Your task to perform on an android device: allow cookies in the chrome app Image 0: 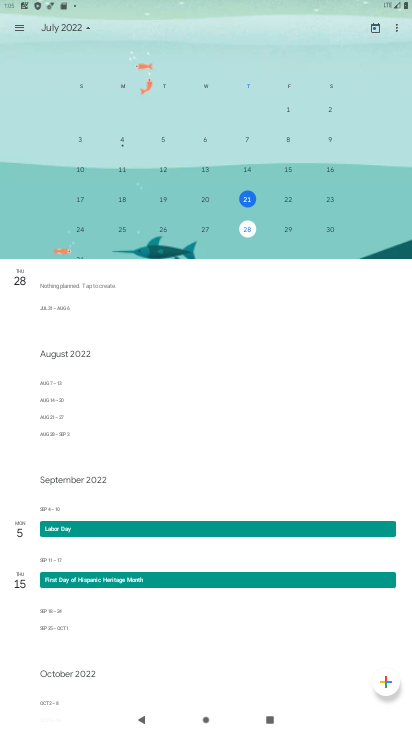
Step 0: press home button
Your task to perform on an android device: allow cookies in the chrome app Image 1: 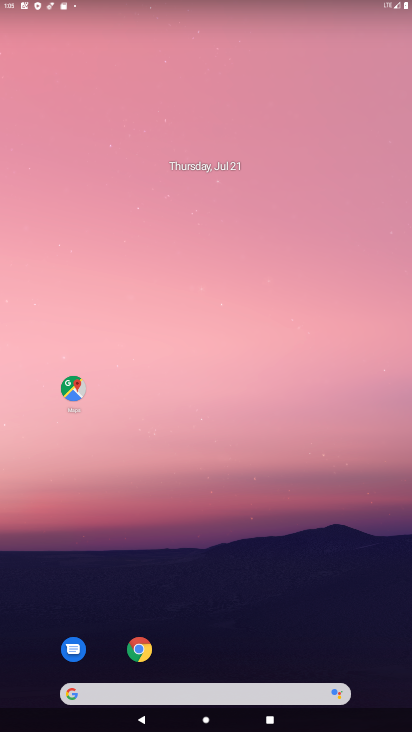
Step 1: click (142, 652)
Your task to perform on an android device: allow cookies in the chrome app Image 2: 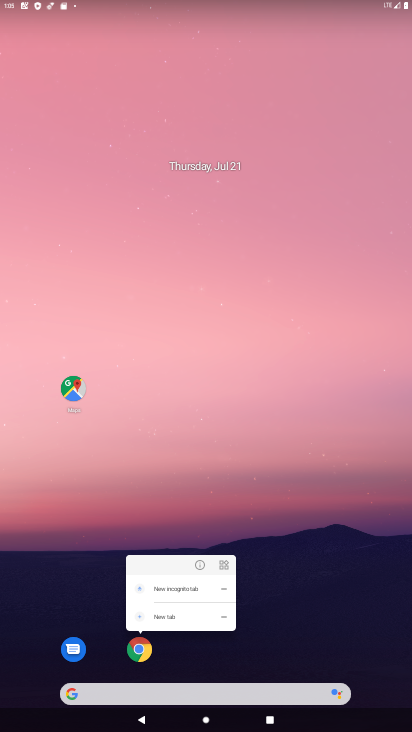
Step 2: click (146, 656)
Your task to perform on an android device: allow cookies in the chrome app Image 3: 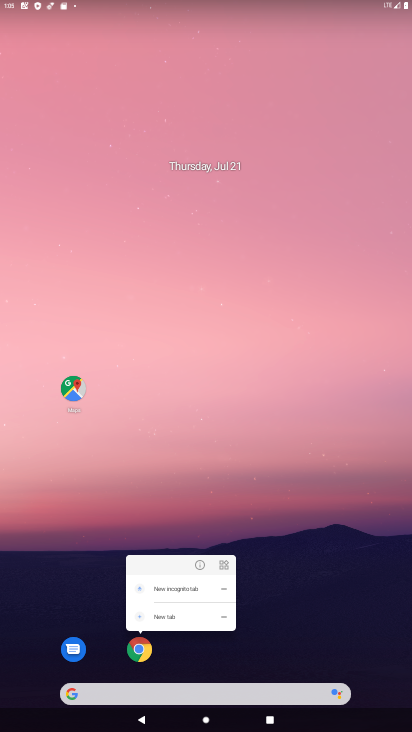
Step 3: click (133, 649)
Your task to perform on an android device: allow cookies in the chrome app Image 4: 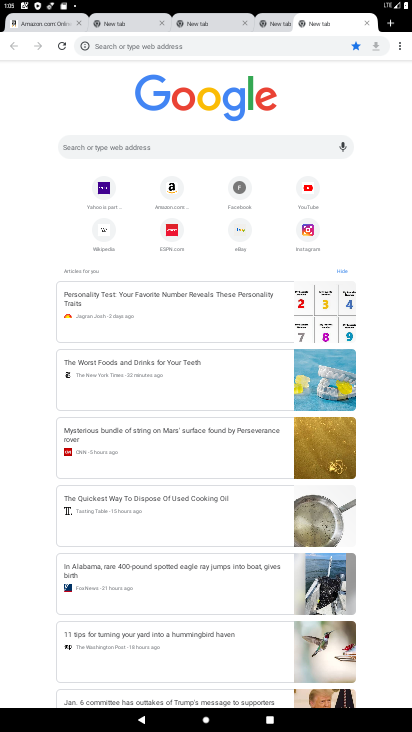
Step 4: click (404, 45)
Your task to perform on an android device: allow cookies in the chrome app Image 5: 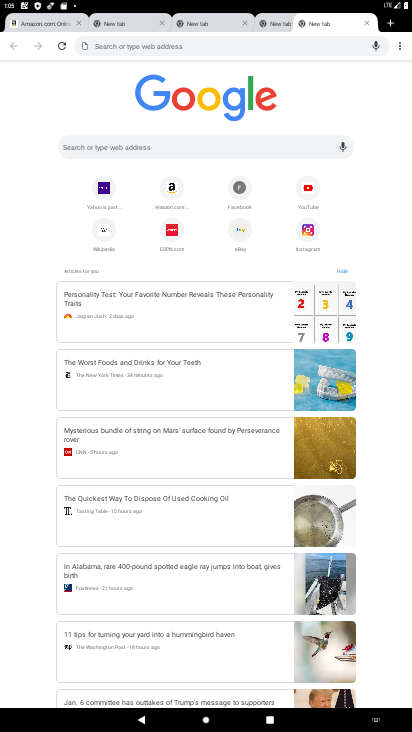
Step 5: click (399, 41)
Your task to perform on an android device: allow cookies in the chrome app Image 6: 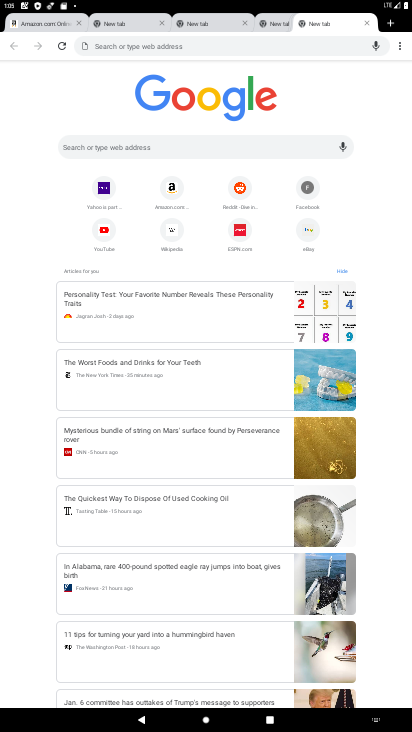
Step 6: click (403, 44)
Your task to perform on an android device: allow cookies in the chrome app Image 7: 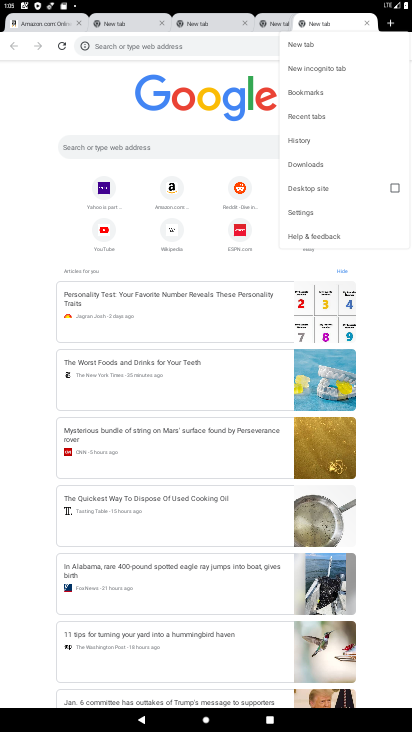
Step 7: click (301, 205)
Your task to perform on an android device: allow cookies in the chrome app Image 8: 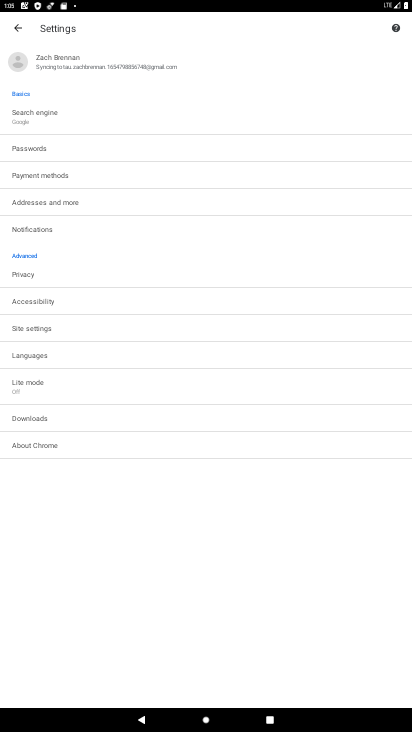
Step 8: click (40, 117)
Your task to perform on an android device: allow cookies in the chrome app Image 9: 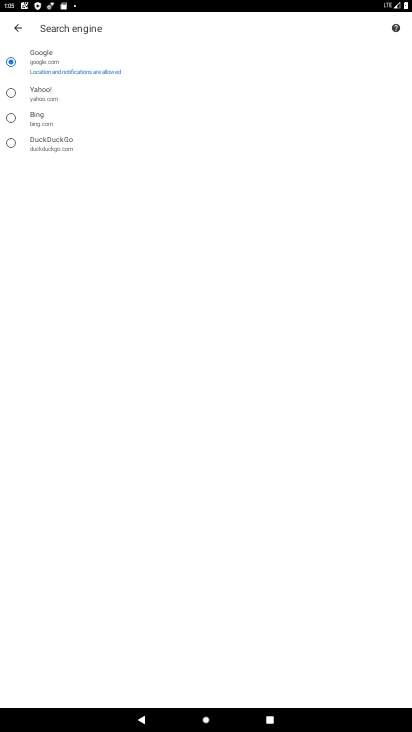
Step 9: click (21, 29)
Your task to perform on an android device: allow cookies in the chrome app Image 10: 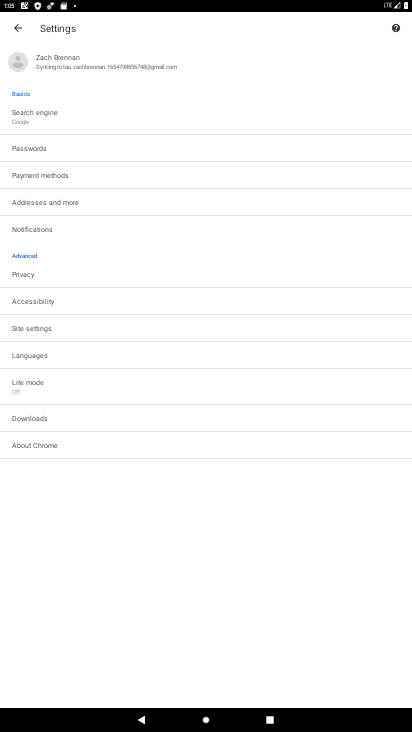
Step 10: click (23, 324)
Your task to perform on an android device: allow cookies in the chrome app Image 11: 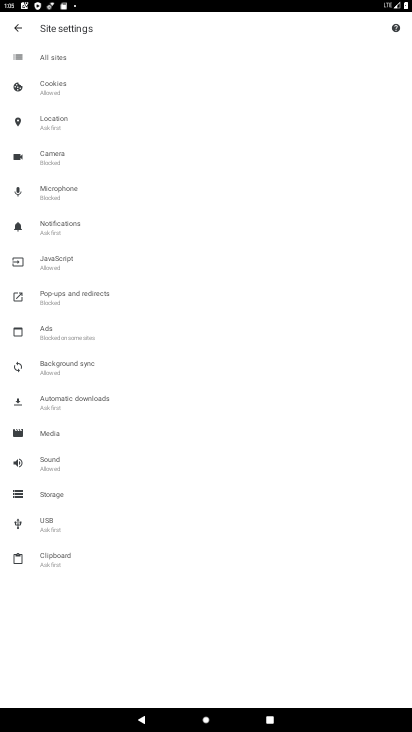
Step 11: click (47, 86)
Your task to perform on an android device: allow cookies in the chrome app Image 12: 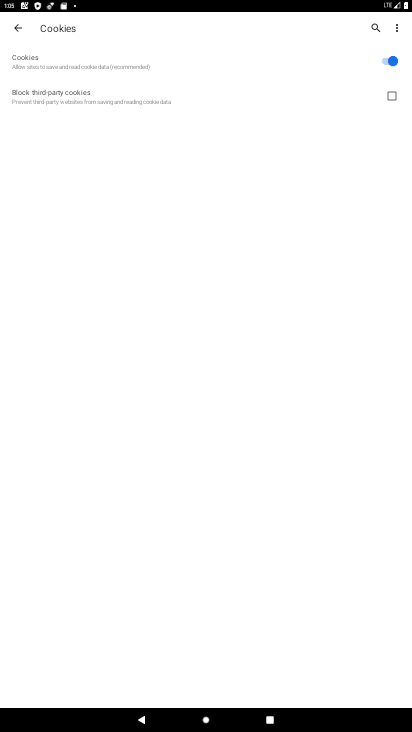
Step 12: task complete